Your task to perform on an android device: Show me popular videos on Youtube Image 0: 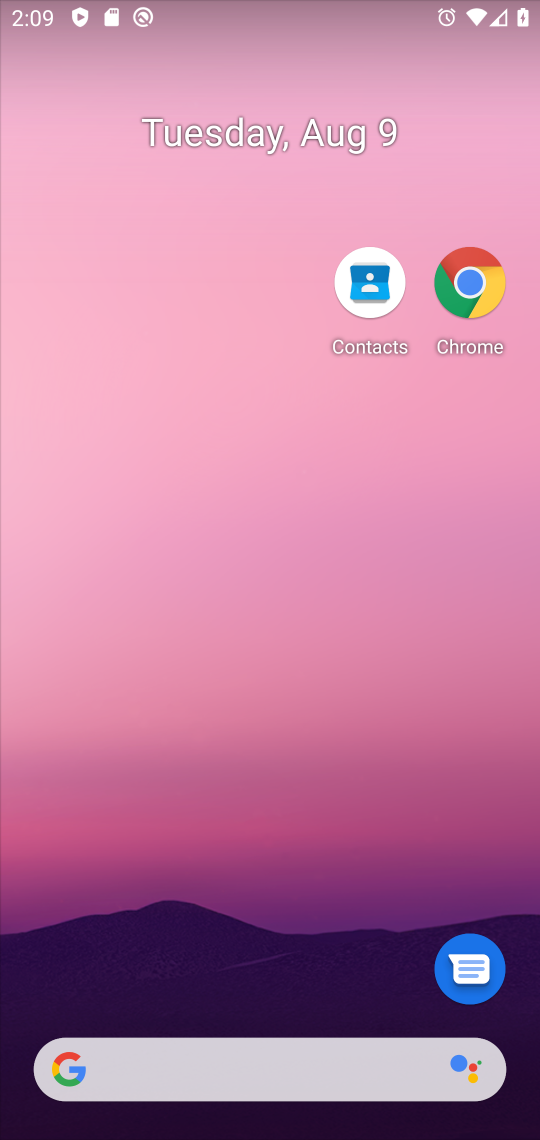
Step 0: drag from (307, 1004) to (321, 401)
Your task to perform on an android device: Show me popular videos on Youtube Image 1: 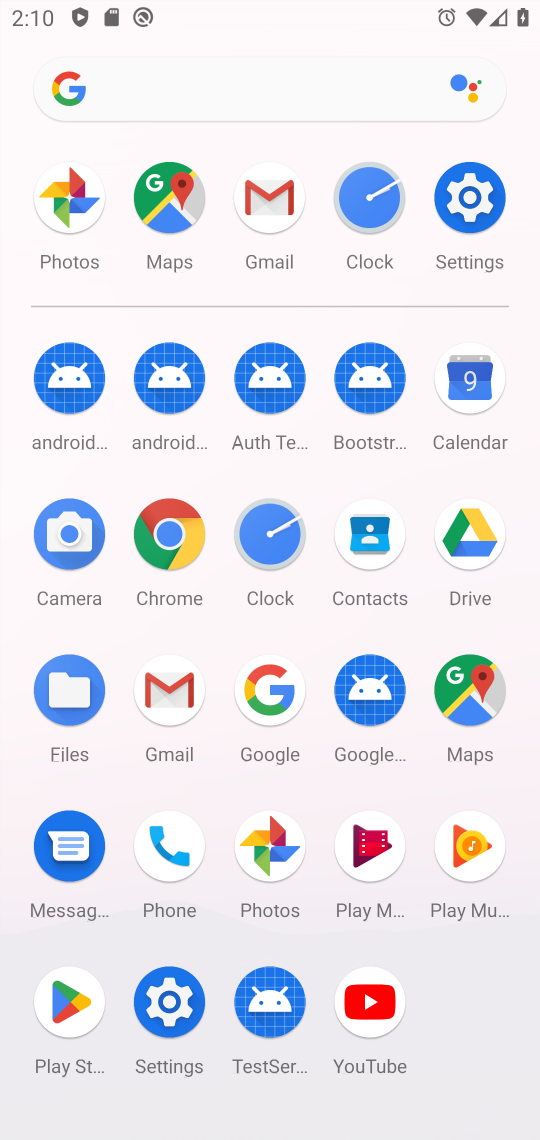
Step 1: click (377, 1008)
Your task to perform on an android device: Show me popular videos on Youtube Image 2: 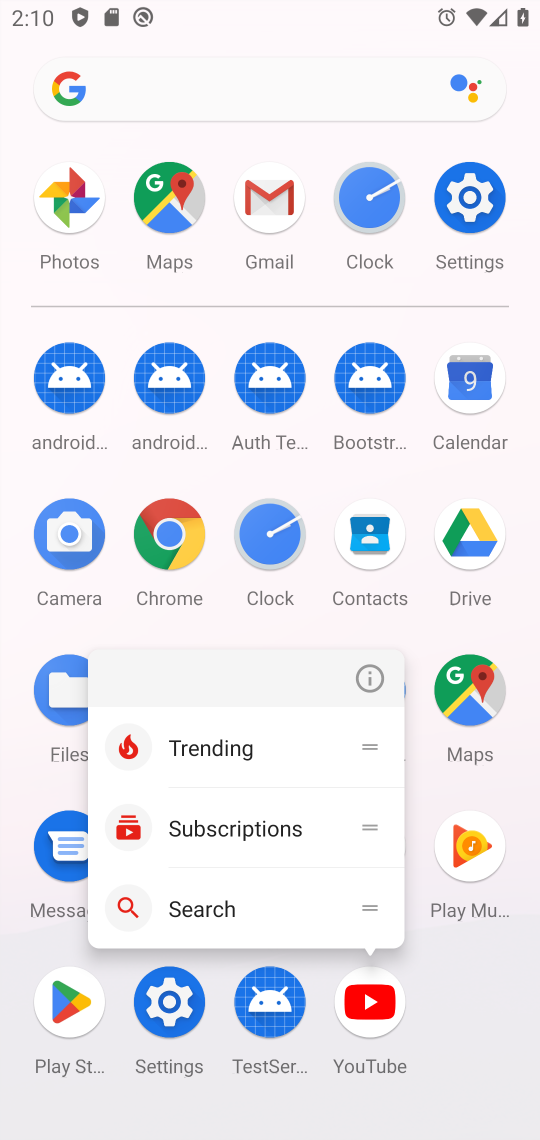
Step 2: click (383, 664)
Your task to perform on an android device: Show me popular videos on Youtube Image 3: 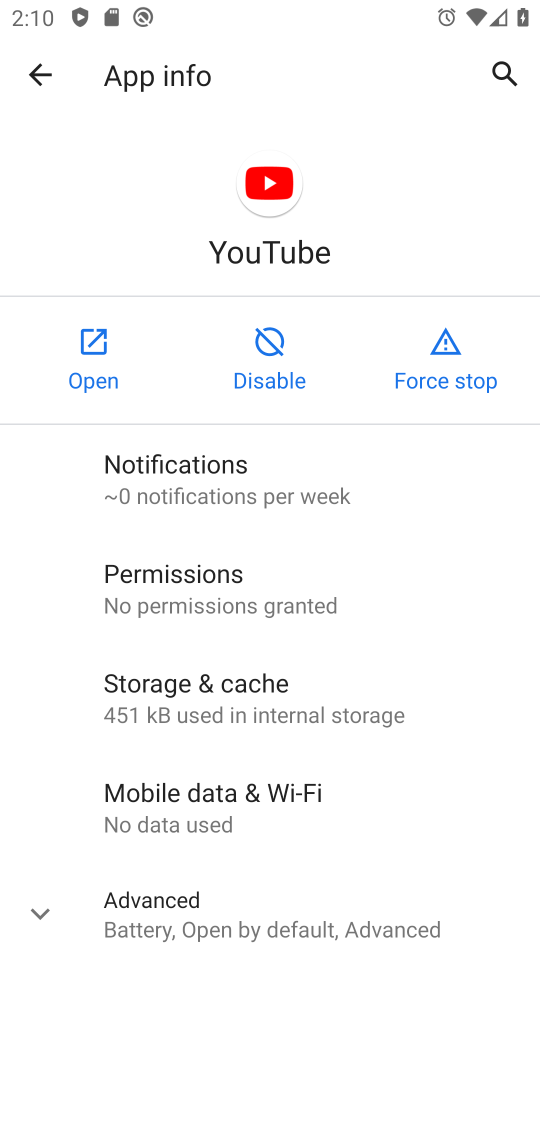
Step 3: click (107, 343)
Your task to perform on an android device: Show me popular videos on Youtube Image 4: 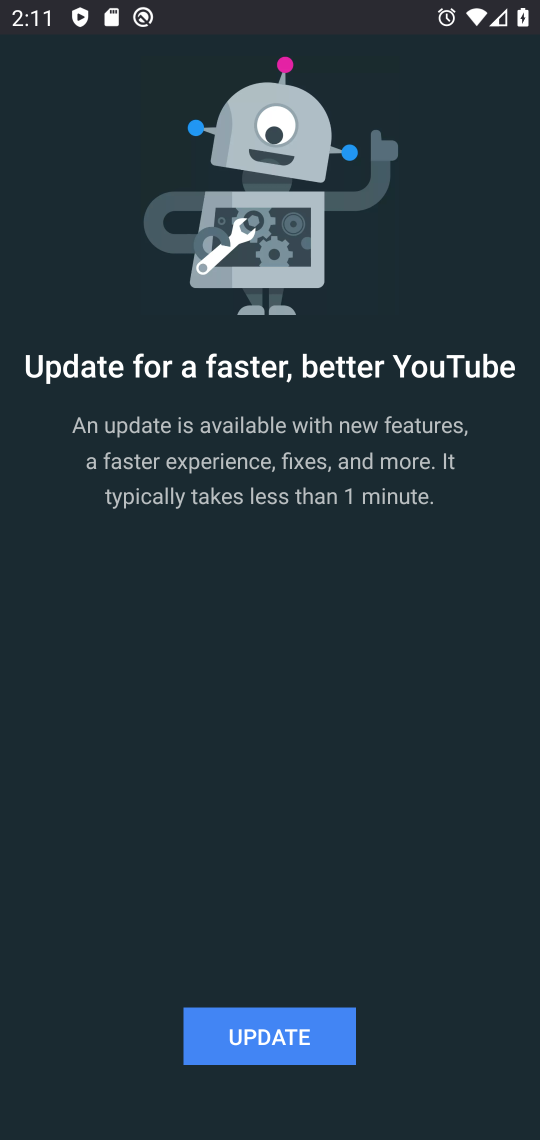
Step 4: click (211, 620)
Your task to perform on an android device: Show me popular videos on Youtube Image 5: 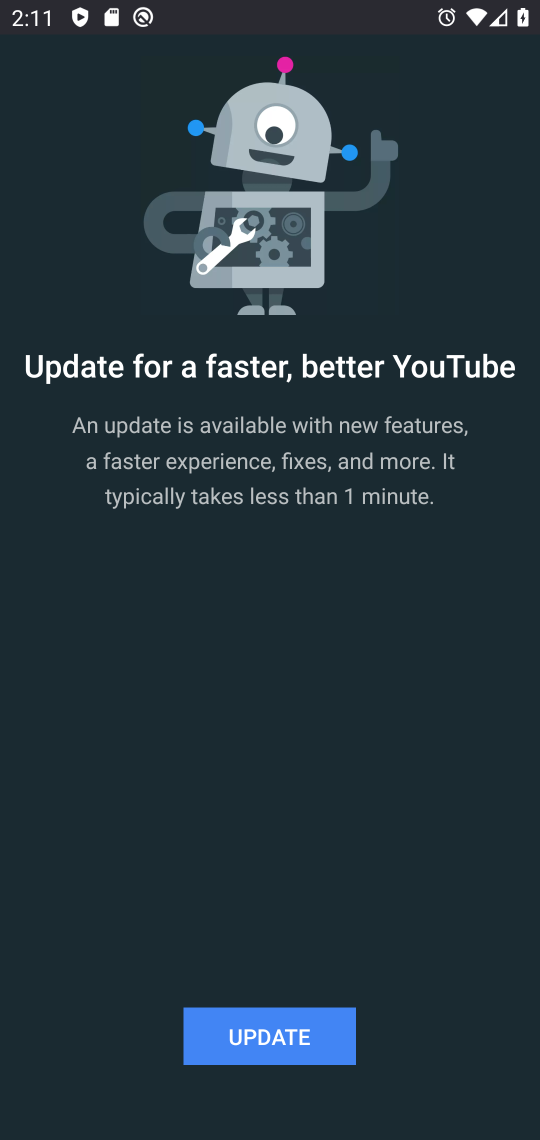
Step 5: task complete